Your task to perform on an android device: Open Wikipedia Image 0: 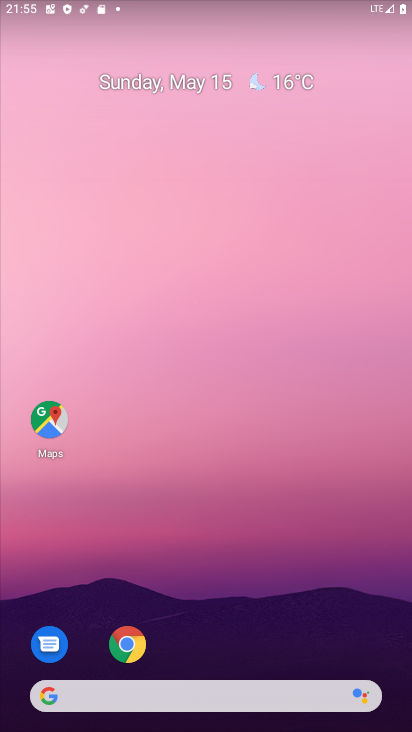
Step 0: click (124, 636)
Your task to perform on an android device: Open Wikipedia Image 1: 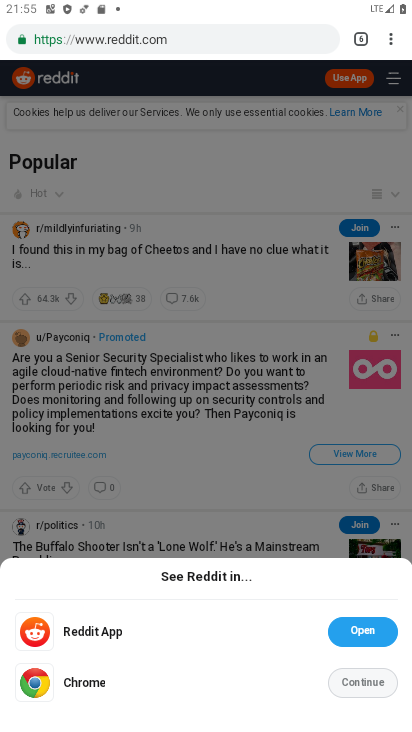
Step 1: click (380, 41)
Your task to perform on an android device: Open Wikipedia Image 2: 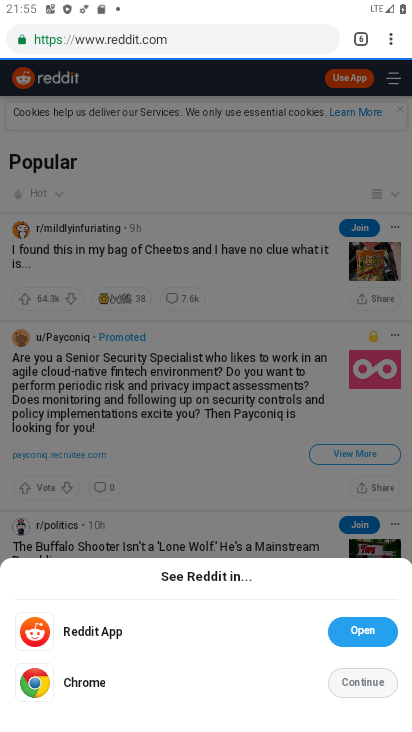
Step 2: click (366, 34)
Your task to perform on an android device: Open Wikipedia Image 3: 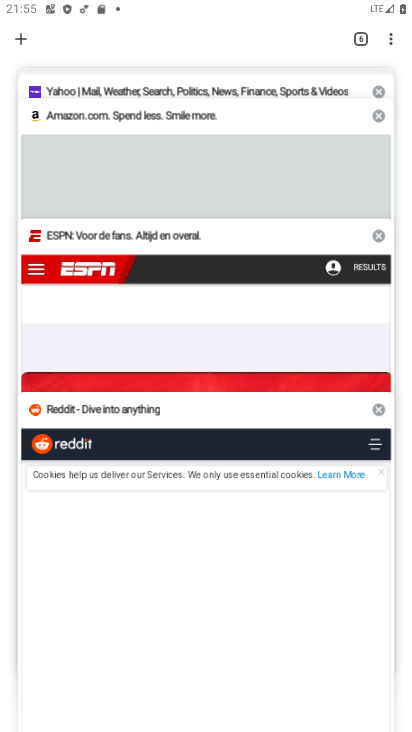
Step 3: drag from (221, 184) to (174, 638)
Your task to perform on an android device: Open Wikipedia Image 4: 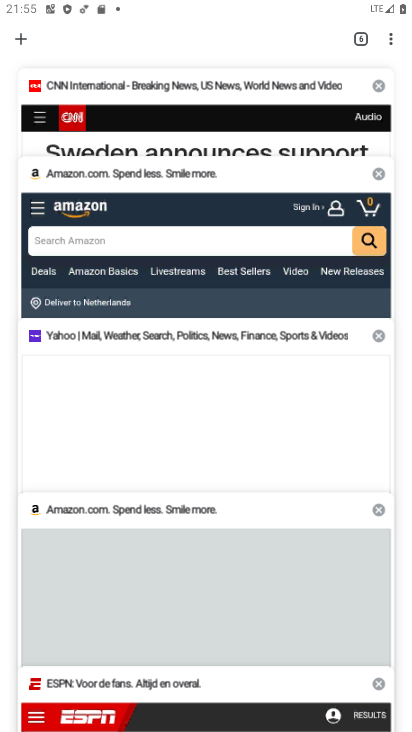
Step 4: drag from (136, 146) to (87, 708)
Your task to perform on an android device: Open Wikipedia Image 5: 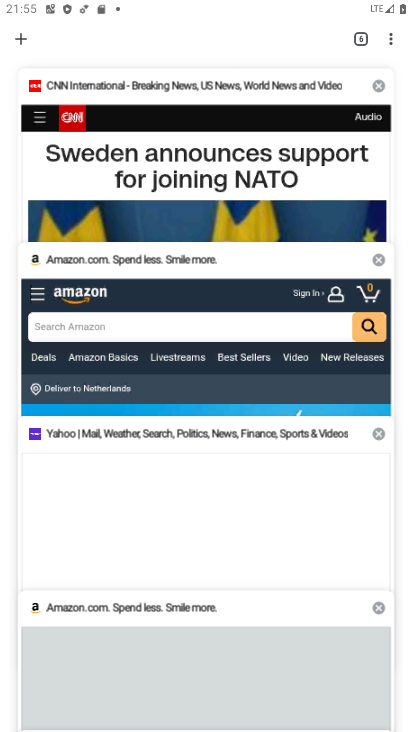
Step 5: click (19, 34)
Your task to perform on an android device: Open Wikipedia Image 6: 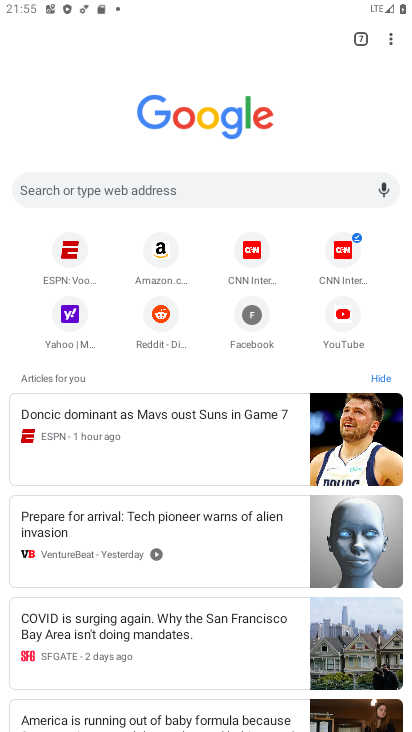
Step 6: click (136, 190)
Your task to perform on an android device: Open Wikipedia Image 7: 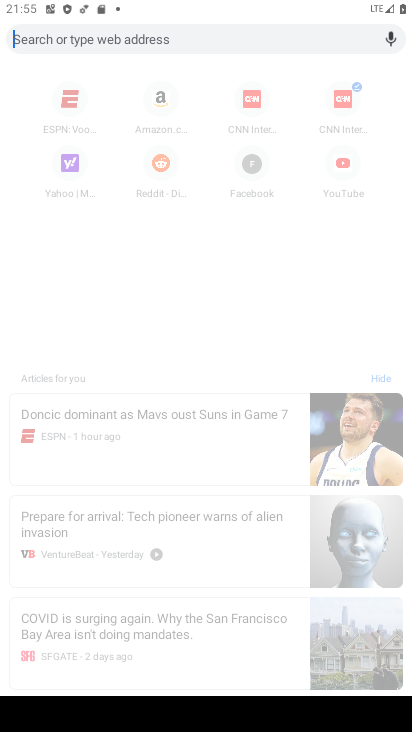
Step 7: type "wikipedia"
Your task to perform on an android device: Open Wikipedia Image 8: 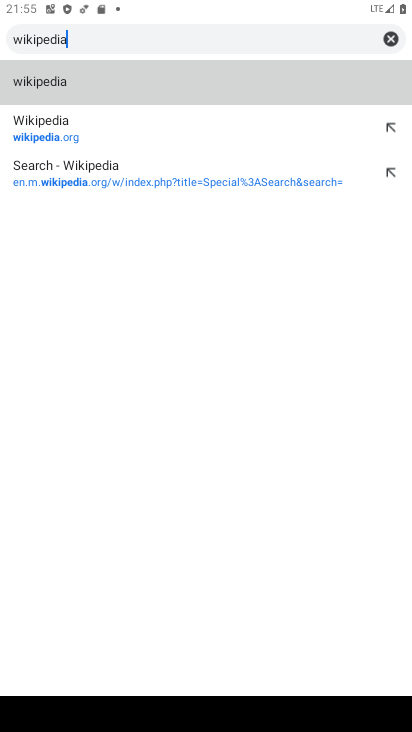
Step 8: click (53, 134)
Your task to perform on an android device: Open Wikipedia Image 9: 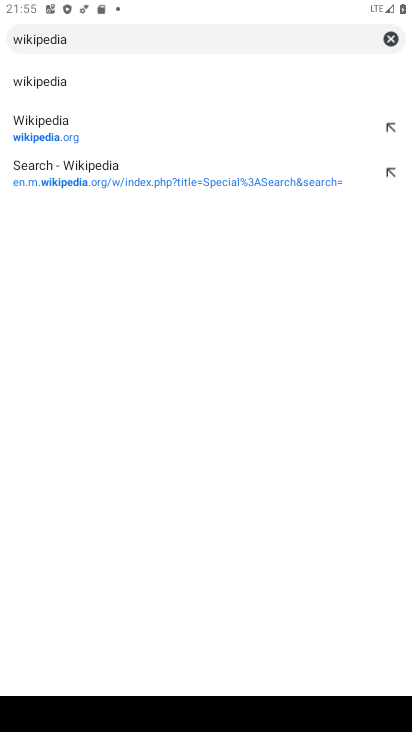
Step 9: click (83, 129)
Your task to perform on an android device: Open Wikipedia Image 10: 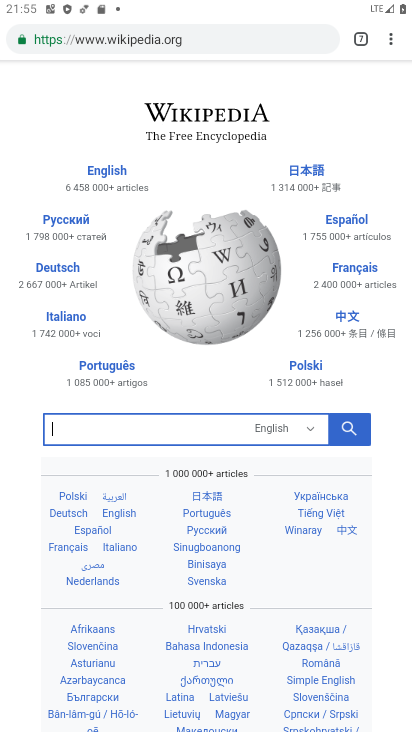
Step 10: task complete